Your task to perform on an android device: open app "DoorDash - Dasher" (install if not already installed) Image 0: 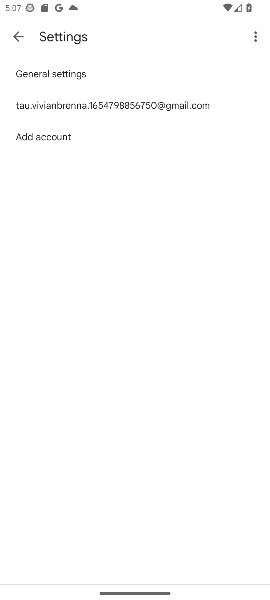
Step 0: press home button
Your task to perform on an android device: open app "DoorDash - Dasher" (install if not already installed) Image 1: 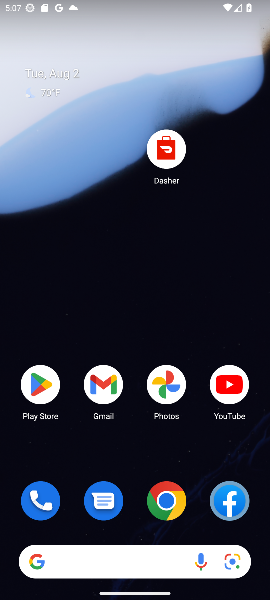
Step 1: click (40, 386)
Your task to perform on an android device: open app "DoorDash - Dasher" (install if not already installed) Image 2: 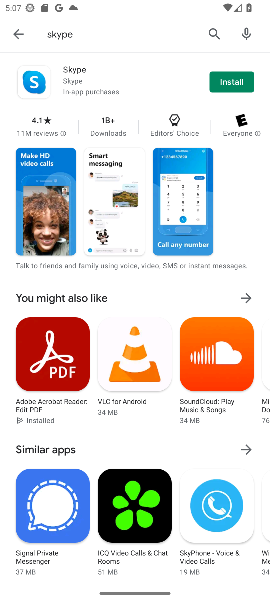
Step 2: click (213, 31)
Your task to perform on an android device: open app "DoorDash - Dasher" (install if not already installed) Image 3: 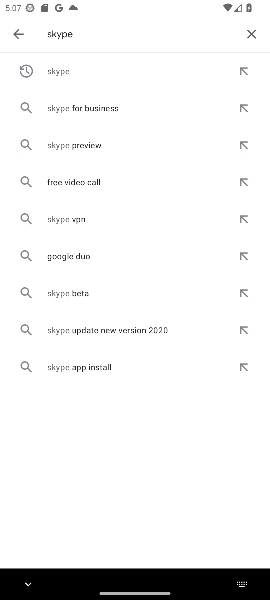
Step 3: click (253, 38)
Your task to perform on an android device: open app "DoorDash - Dasher" (install if not already installed) Image 4: 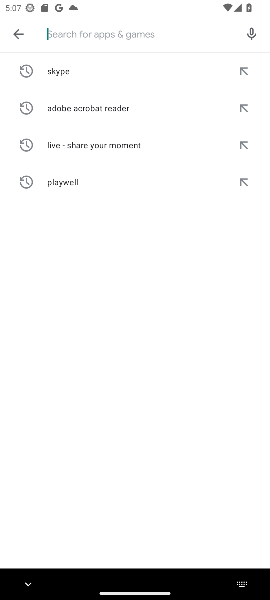
Step 4: type "DoorDash - Dasher"
Your task to perform on an android device: open app "DoorDash - Dasher" (install if not already installed) Image 5: 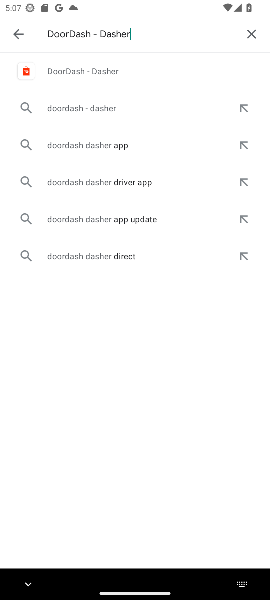
Step 5: click (79, 67)
Your task to perform on an android device: open app "DoorDash - Dasher" (install if not already installed) Image 6: 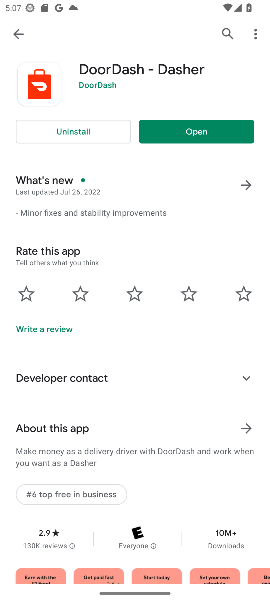
Step 6: click (180, 133)
Your task to perform on an android device: open app "DoorDash - Dasher" (install if not already installed) Image 7: 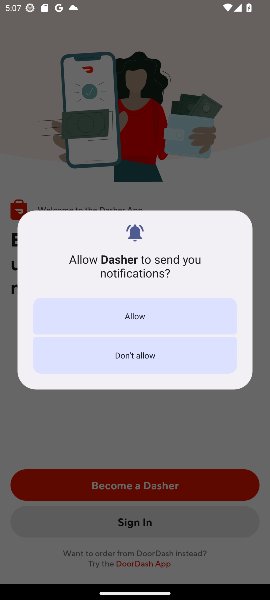
Step 7: task complete